Your task to perform on an android device: Open internet settings Image 0: 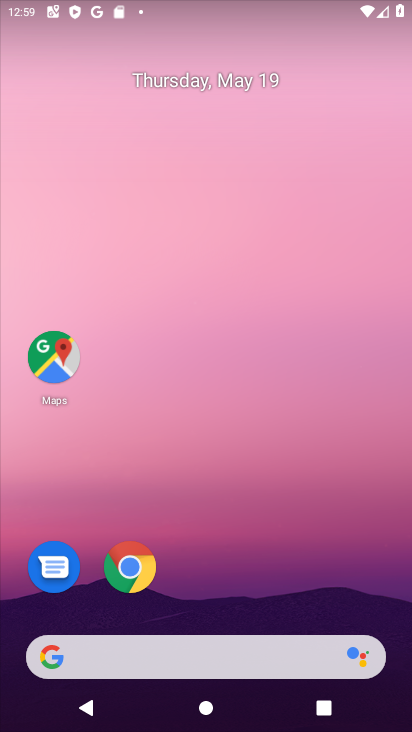
Step 0: drag from (305, 556) to (259, 50)
Your task to perform on an android device: Open internet settings Image 1: 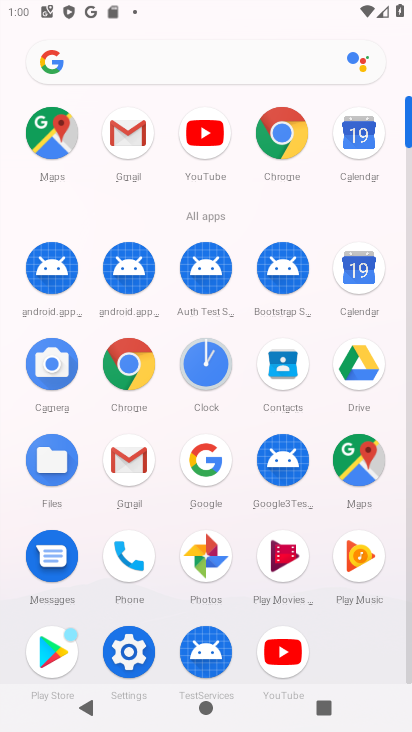
Step 1: click (136, 645)
Your task to perform on an android device: Open internet settings Image 2: 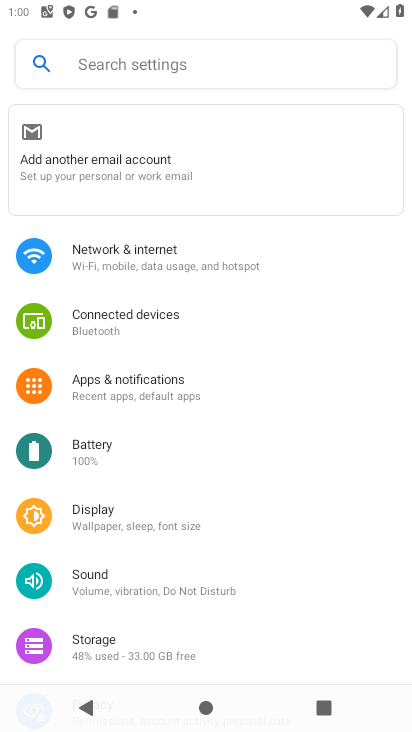
Step 2: click (117, 261)
Your task to perform on an android device: Open internet settings Image 3: 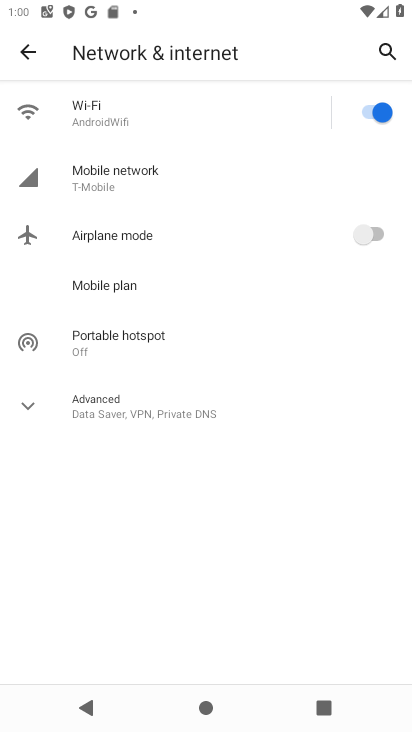
Step 3: task complete